Your task to perform on an android device: open device folders in google photos Image 0: 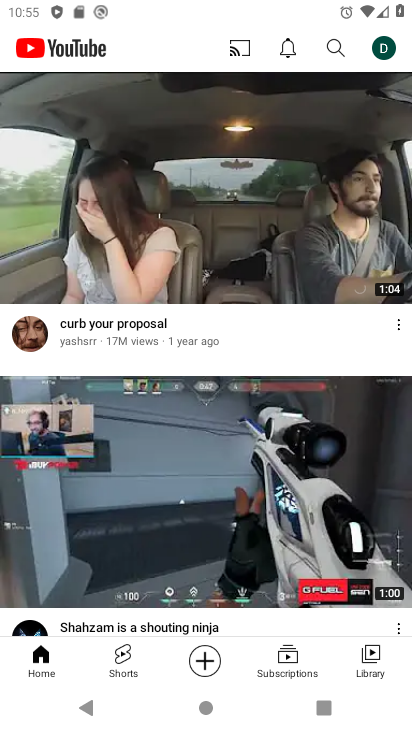
Step 0: press home button
Your task to perform on an android device: open device folders in google photos Image 1: 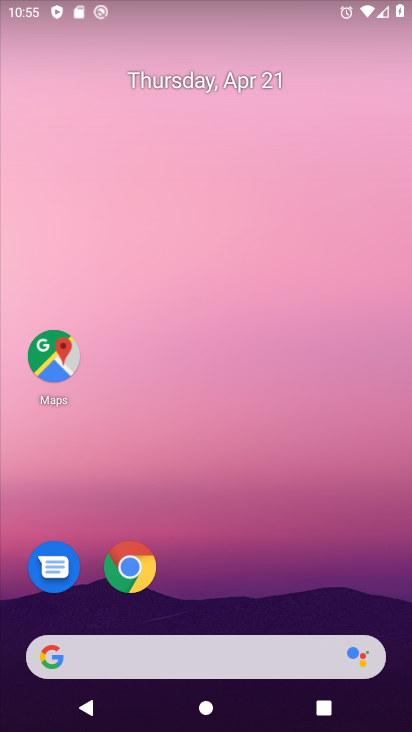
Step 1: drag from (199, 595) to (307, 59)
Your task to perform on an android device: open device folders in google photos Image 2: 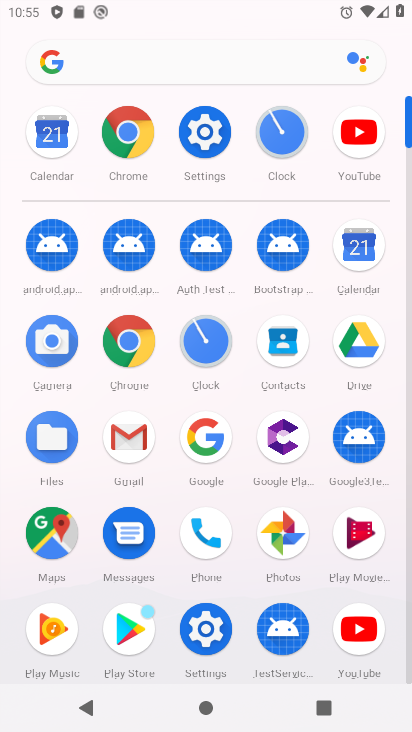
Step 2: click (285, 545)
Your task to perform on an android device: open device folders in google photos Image 3: 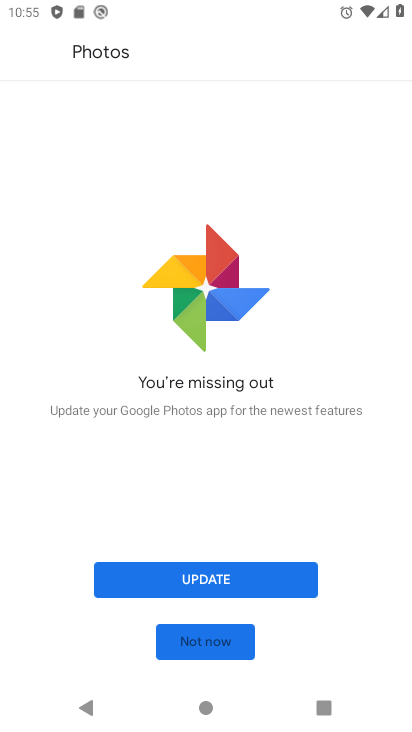
Step 3: click (220, 640)
Your task to perform on an android device: open device folders in google photos Image 4: 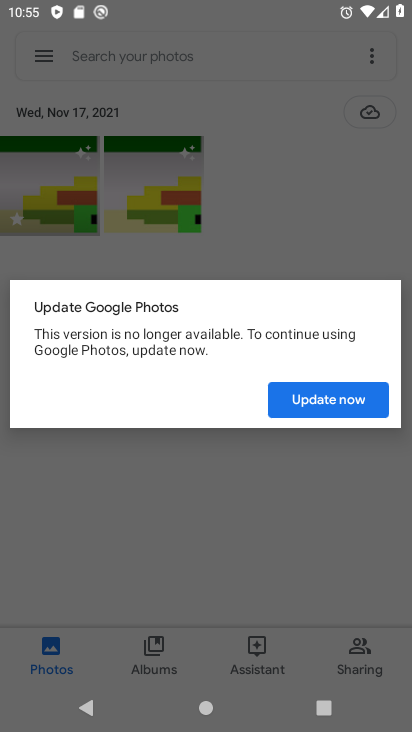
Step 4: click (329, 399)
Your task to perform on an android device: open device folders in google photos Image 5: 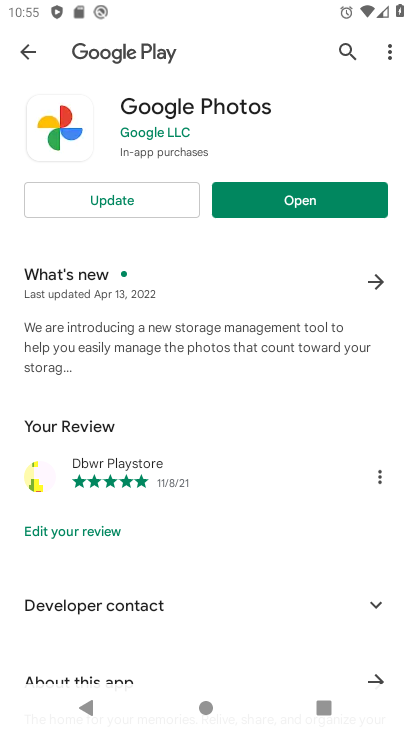
Step 5: click (292, 205)
Your task to perform on an android device: open device folders in google photos Image 6: 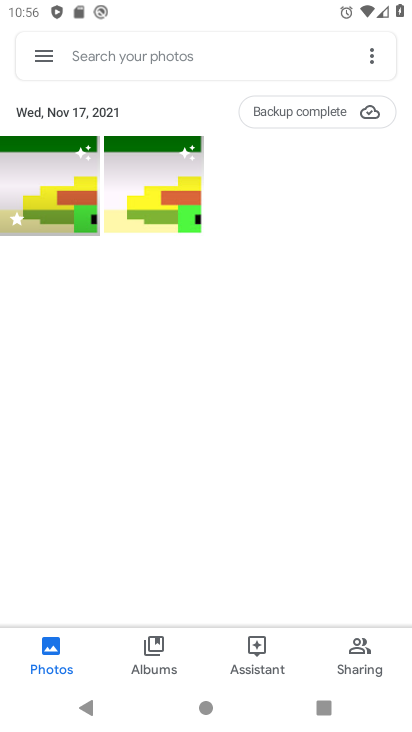
Step 6: click (42, 57)
Your task to perform on an android device: open device folders in google photos Image 7: 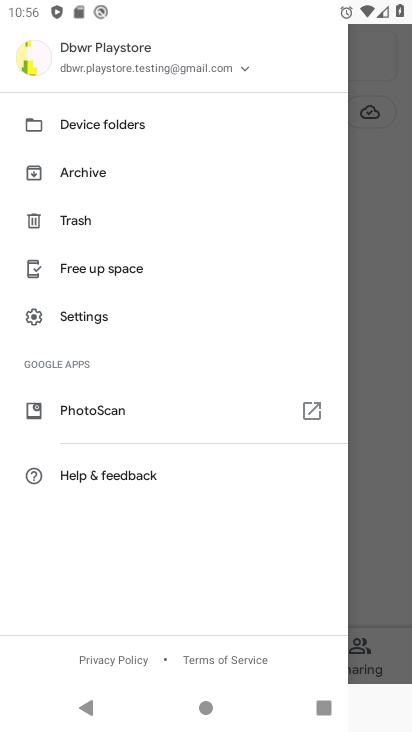
Step 7: click (96, 107)
Your task to perform on an android device: open device folders in google photos Image 8: 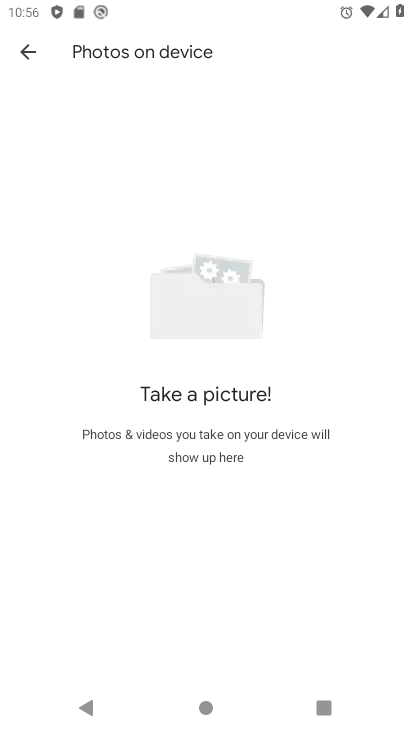
Step 8: task complete